Your task to perform on an android device: check data usage Image 0: 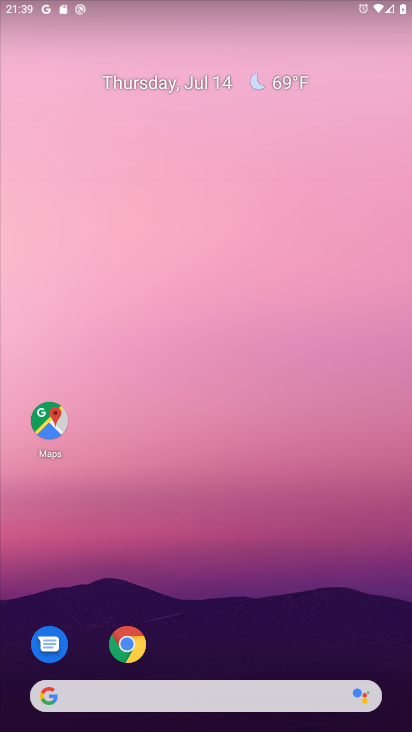
Step 0: drag from (192, 661) to (154, 79)
Your task to perform on an android device: check data usage Image 1: 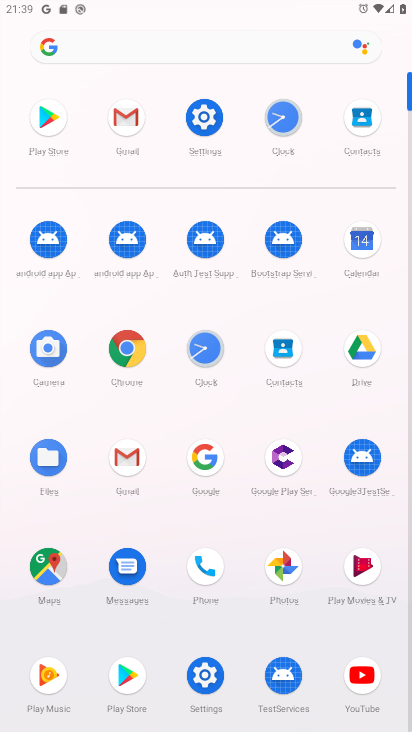
Step 1: click (207, 117)
Your task to perform on an android device: check data usage Image 2: 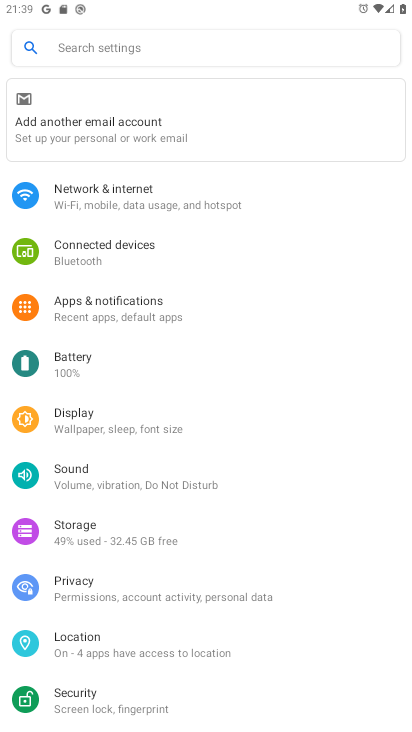
Step 2: click (139, 211)
Your task to perform on an android device: check data usage Image 3: 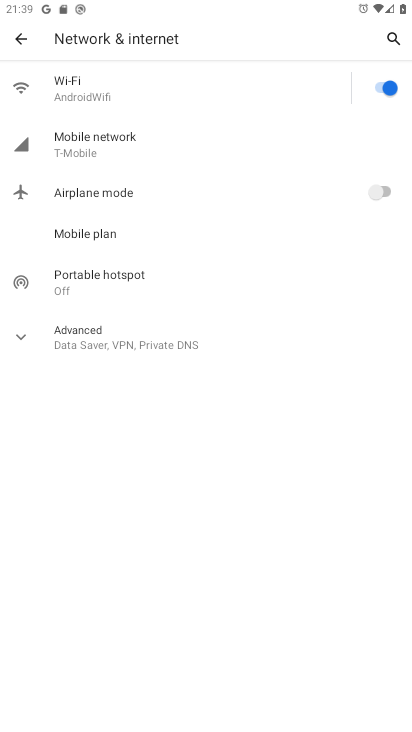
Step 3: click (258, 148)
Your task to perform on an android device: check data usage Image 4: 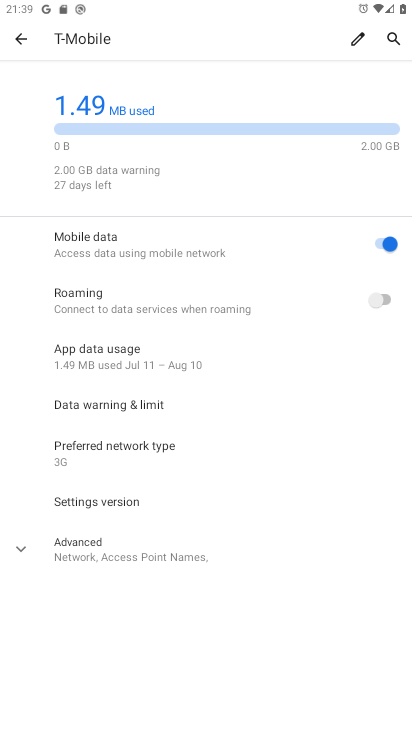
Step 4: task complete